Your task to perform on an android device: install app "DoorDash - Dasher" Image 0: 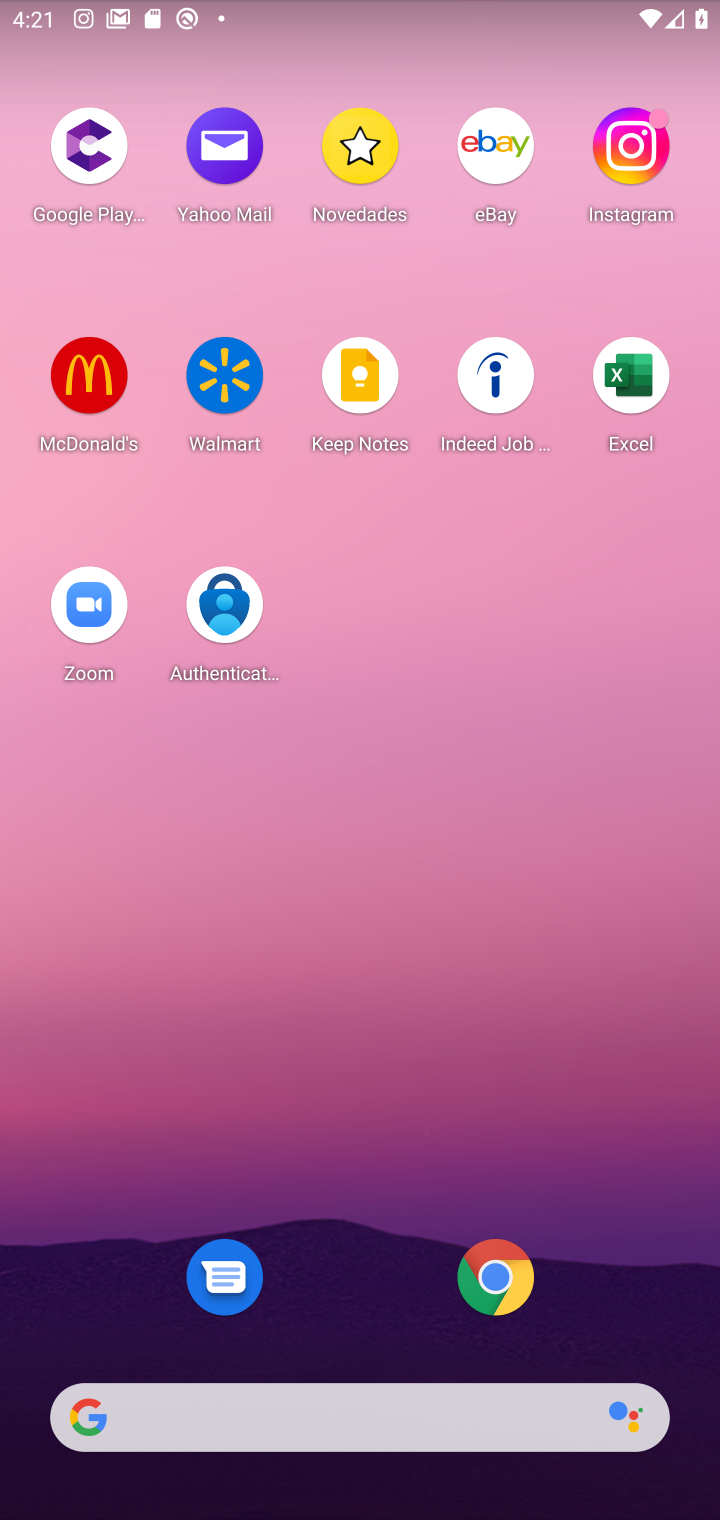
Step 0: drag from (585, 1143) to (568, 182)
Your task to perform on an android device: install app "DoorDash - Dasher" Image 1: 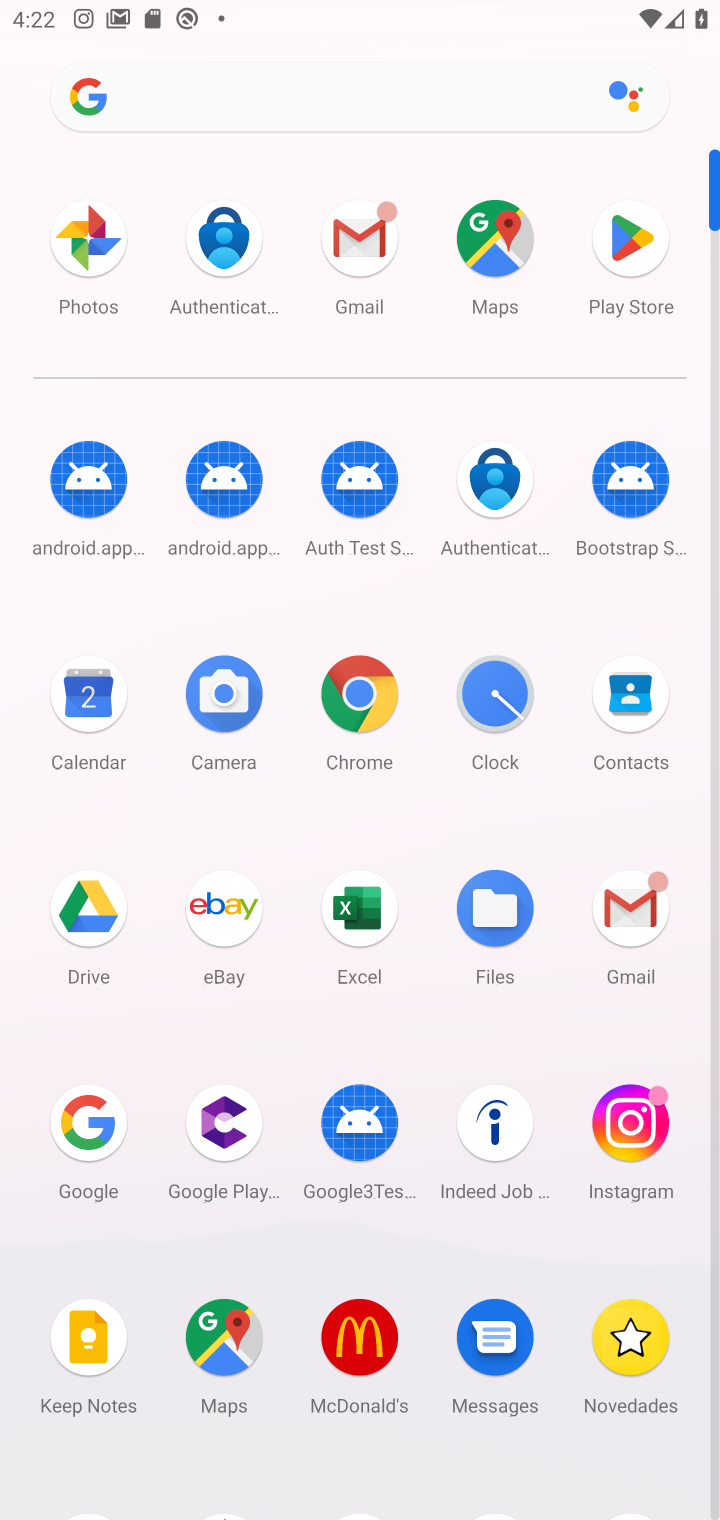
Step 1: drag from (446, 1018) to (467, 251)
Your task to perform on an android device: install app "DoorDash - Dasher" Image 2: 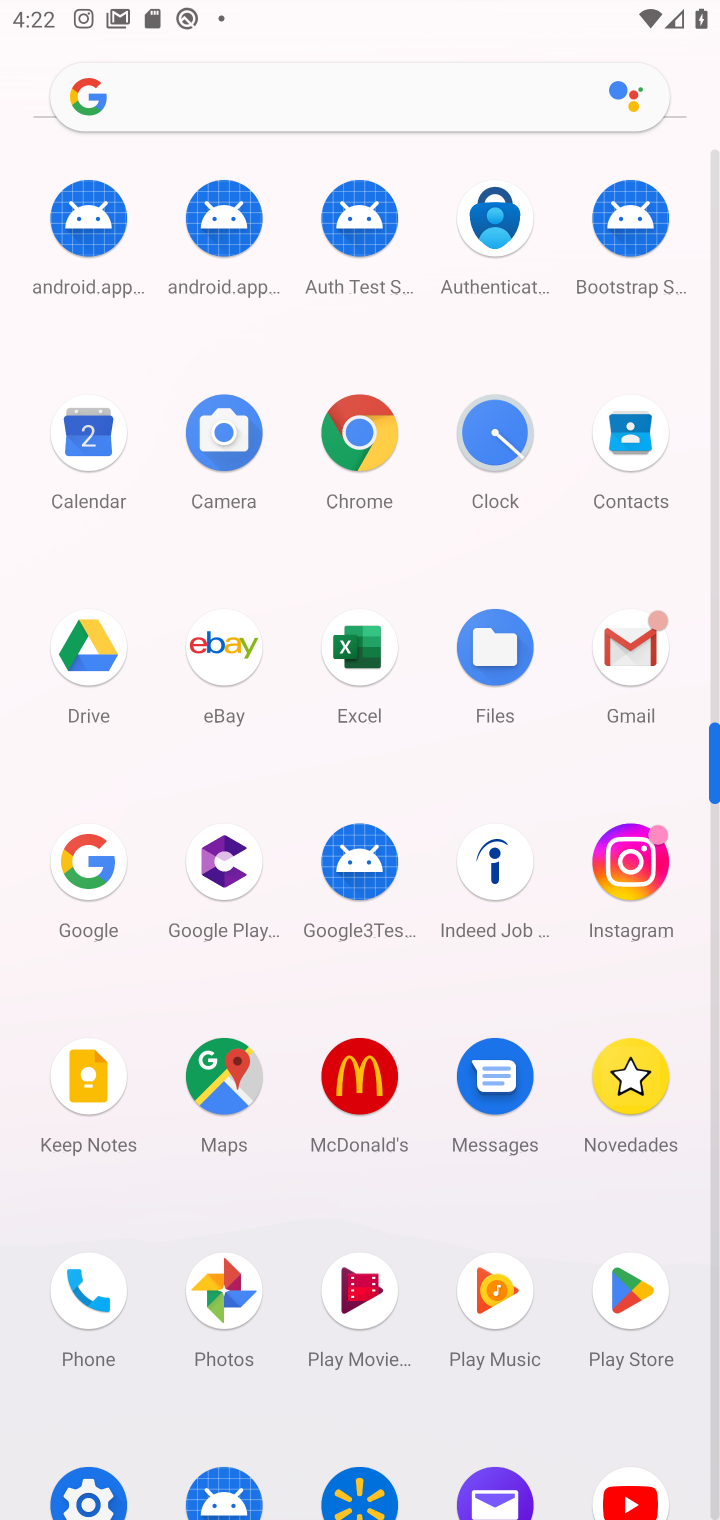
Step 2: click (646, 1346)
Your task to perform on an android device: install app "DoorDash - Dasher" Image 3: 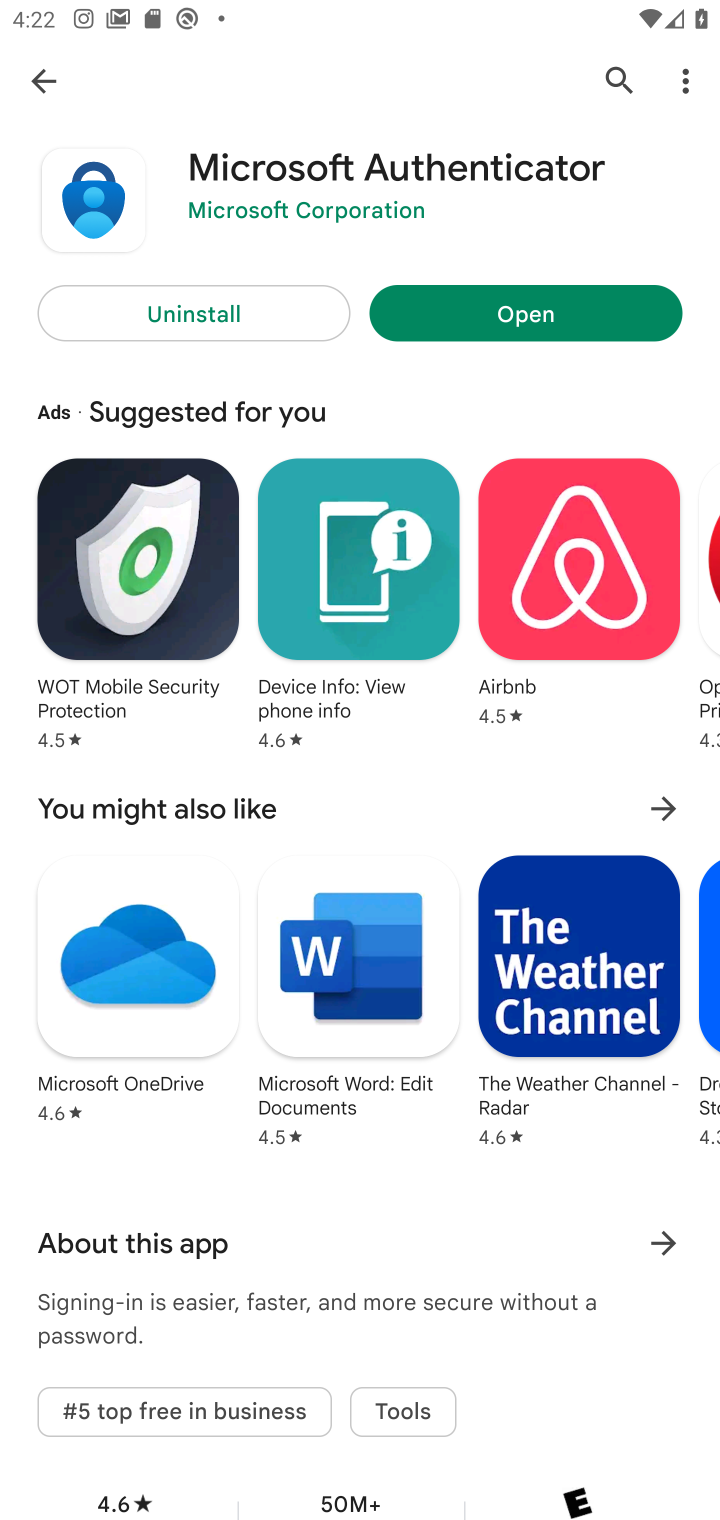
Step 3: click (607, 73)
Your task to perform on an android device: install app "DoorDash - Dasher" Image 4: 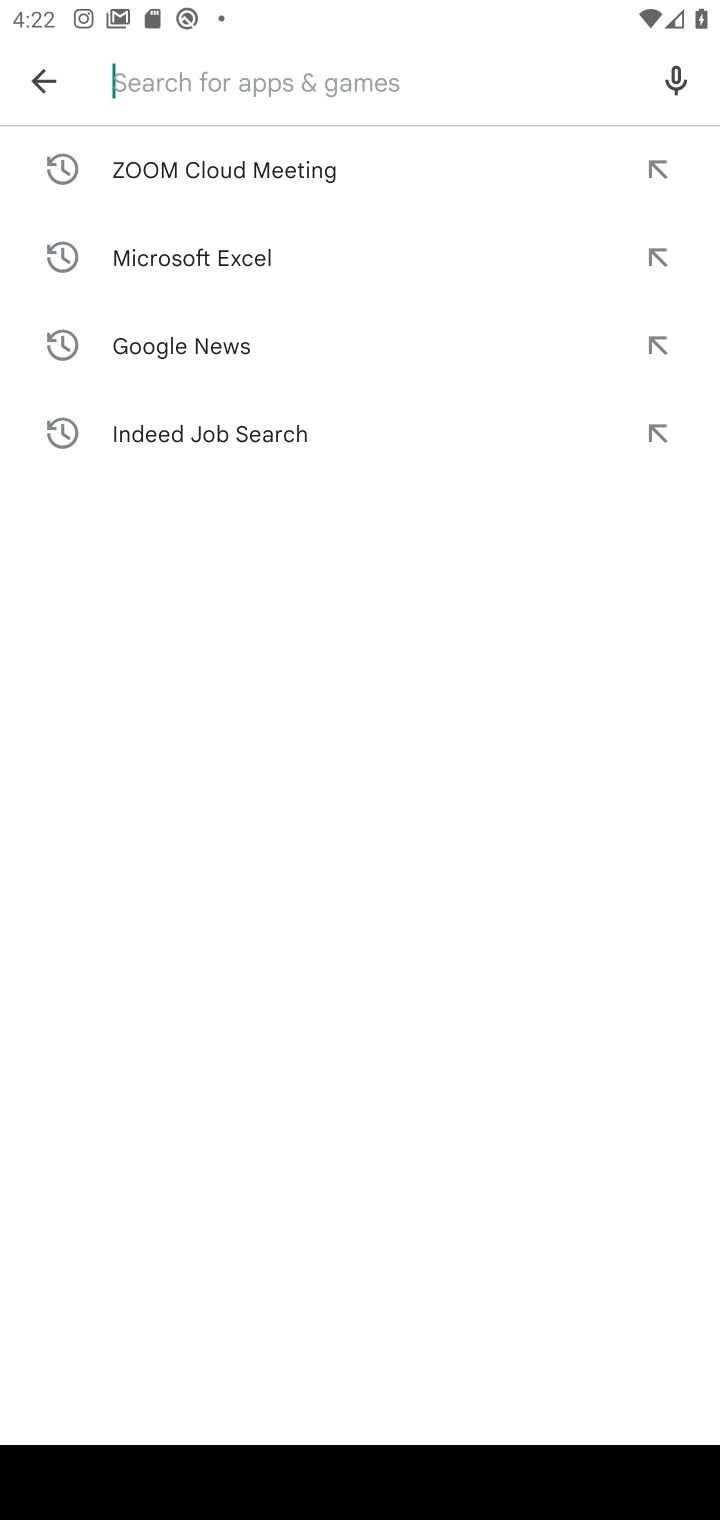
Step 4: type "DoorDash - Dasher"
Your task to perform on an android device: install app "DoorDash - Dasher" Image 5: 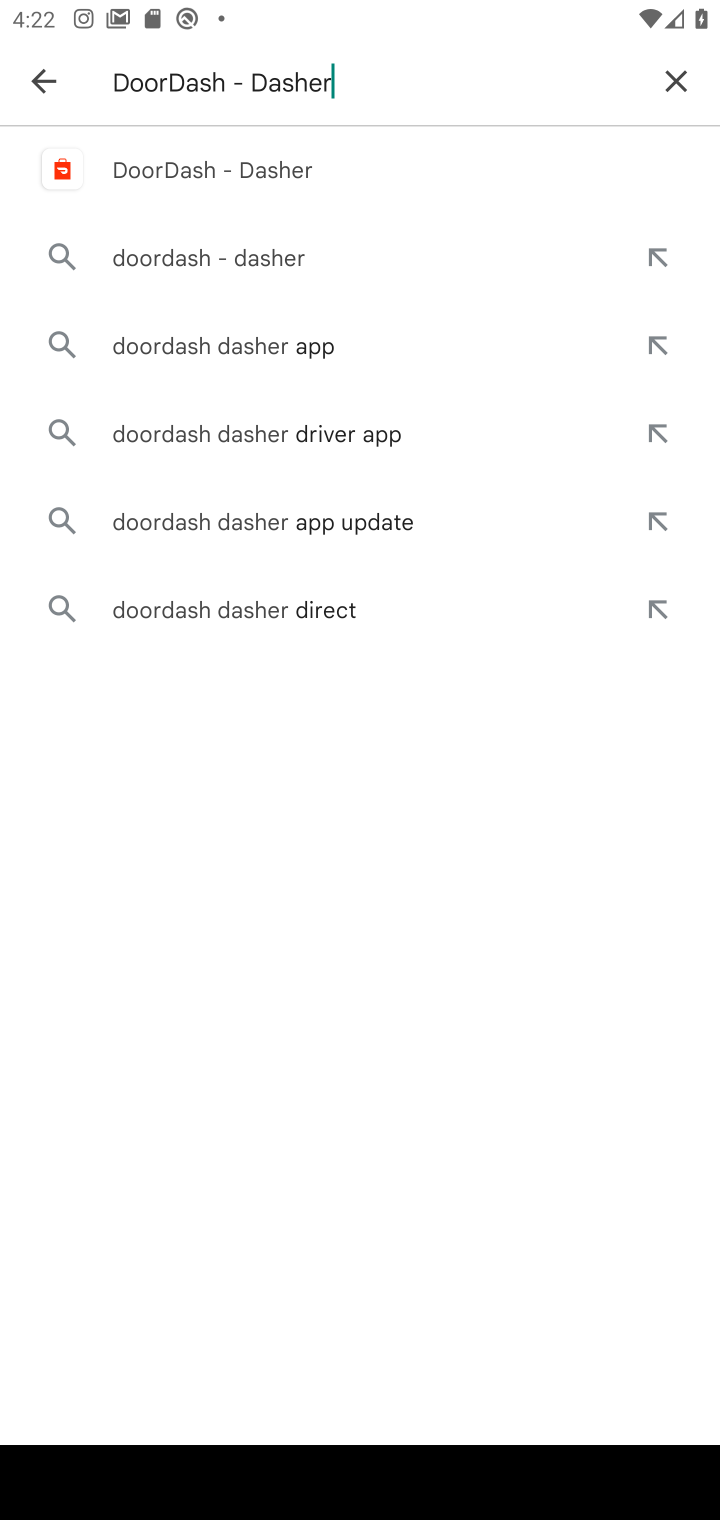
Step 5: click (344, 168)
Your task to perform on an android device: install app "DoorDash - Dasher" Image 6: 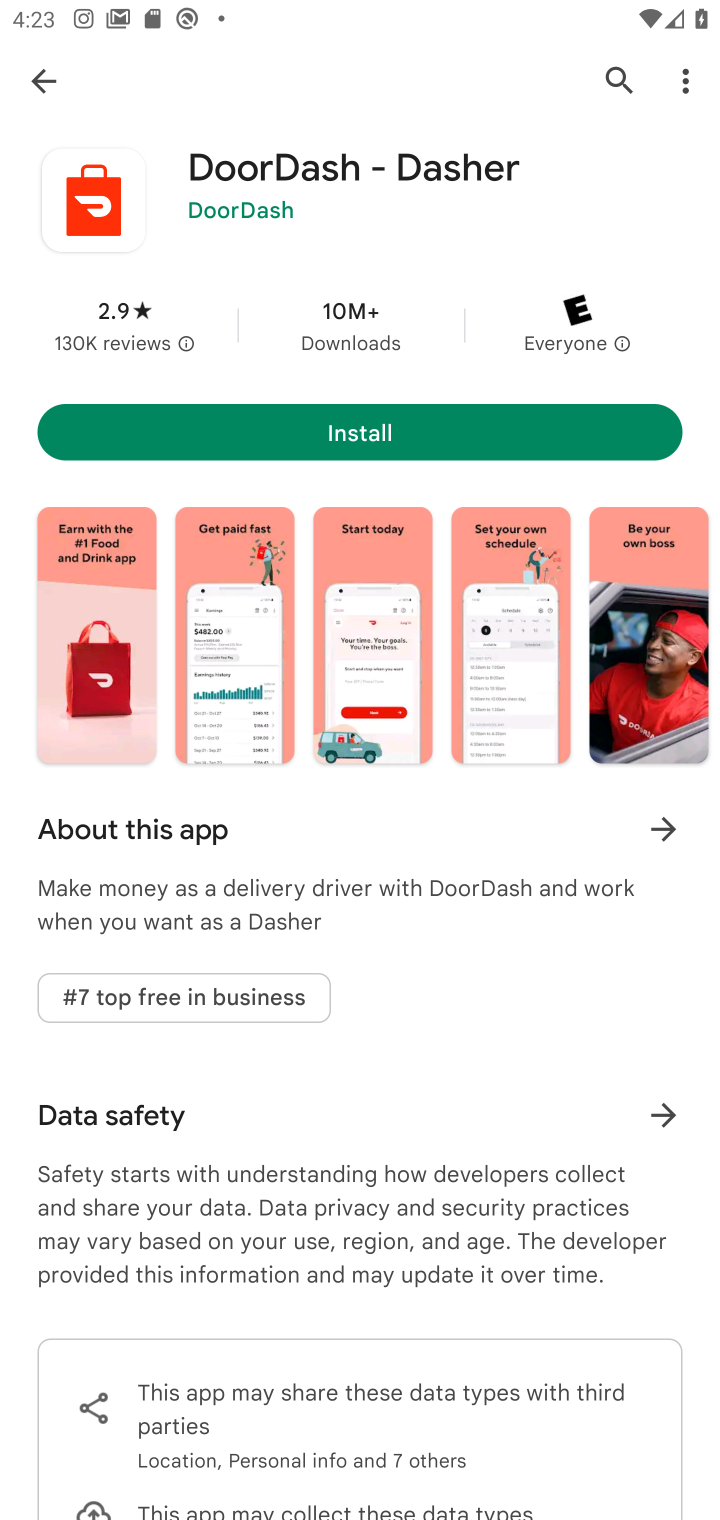
Step 6: click (425, 421)
Your task to perform on an android device: install app "DoorDash - Dasher" Image 7: 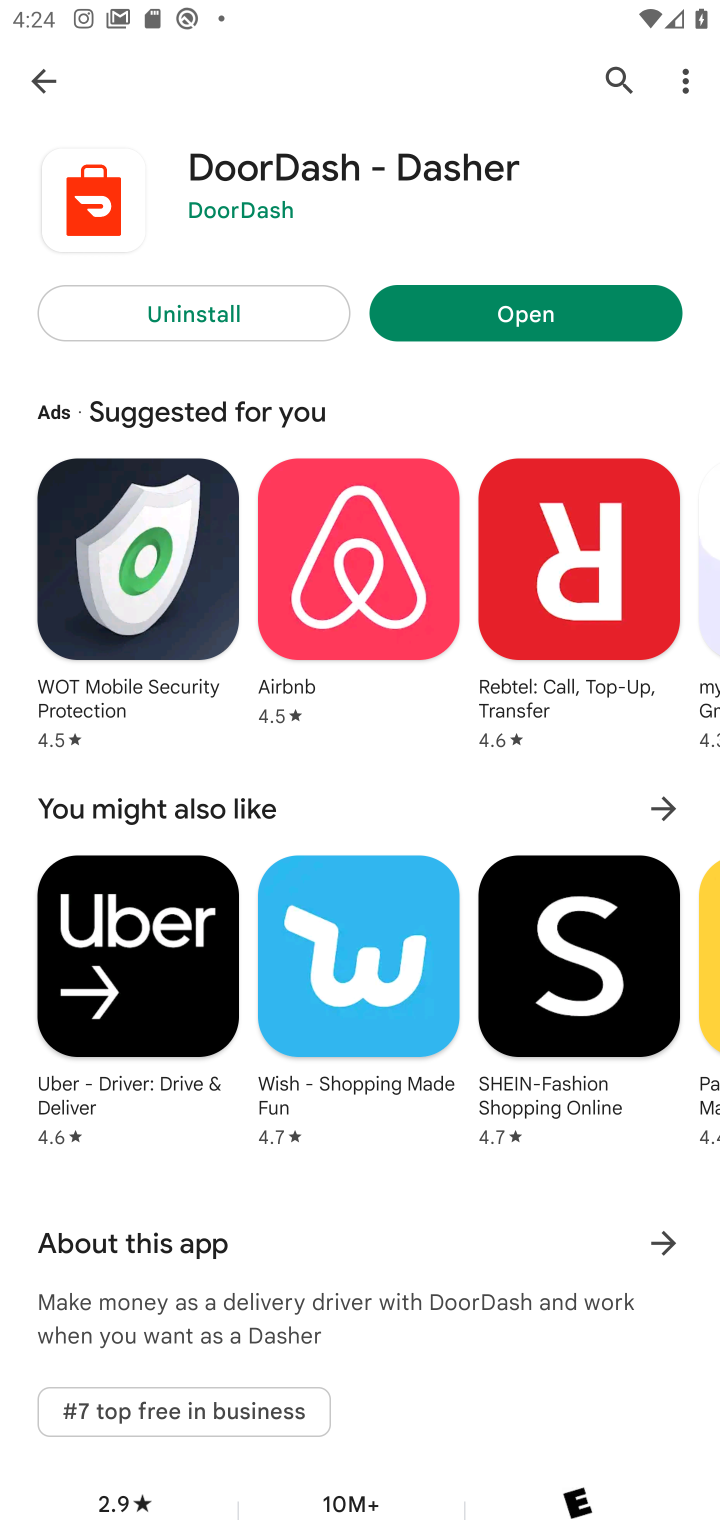
Step 7: task complete